Your task to perform on an android device: Open accessibility settings Image 0: 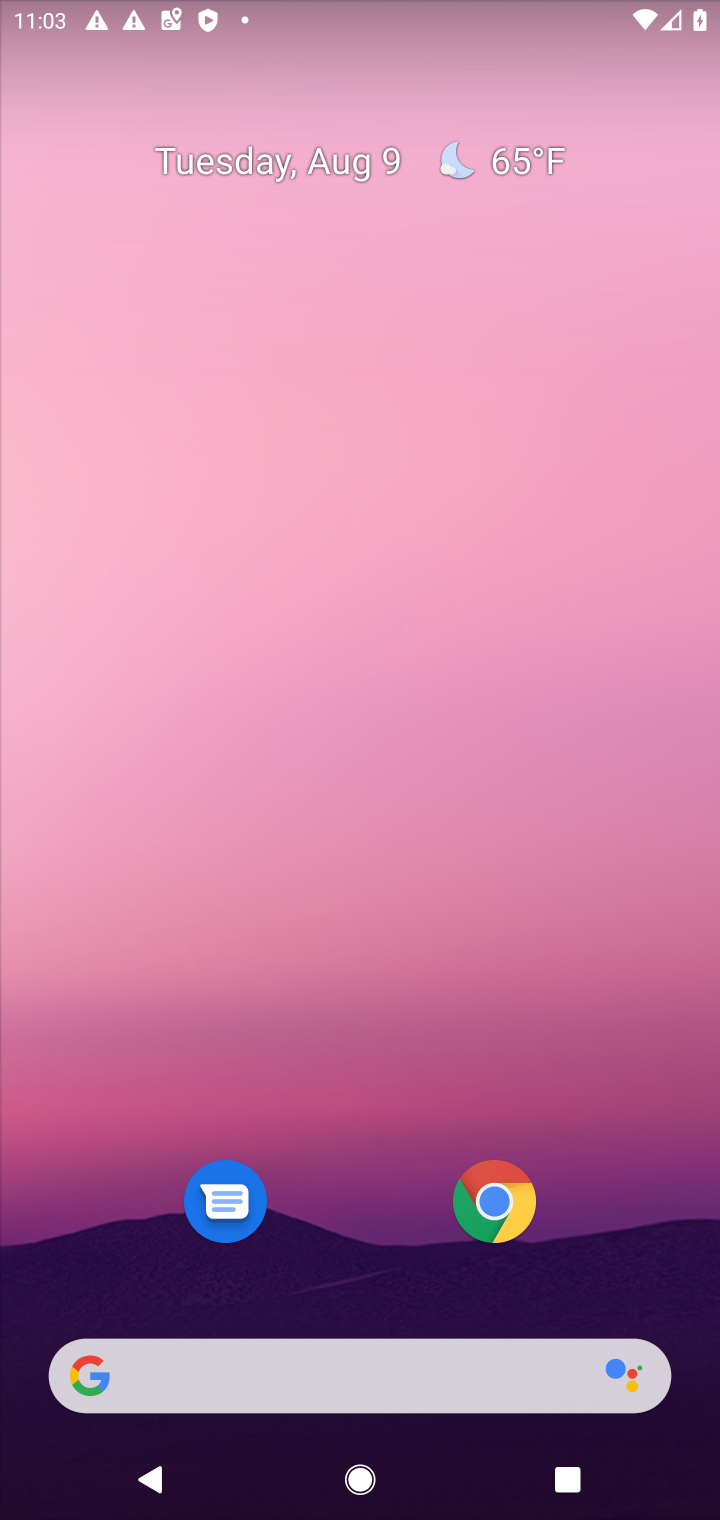
Step 0: drag from (388, 1260) to (663, 247)
Your task to perform on an android device: Open accessibility settings Image 1: 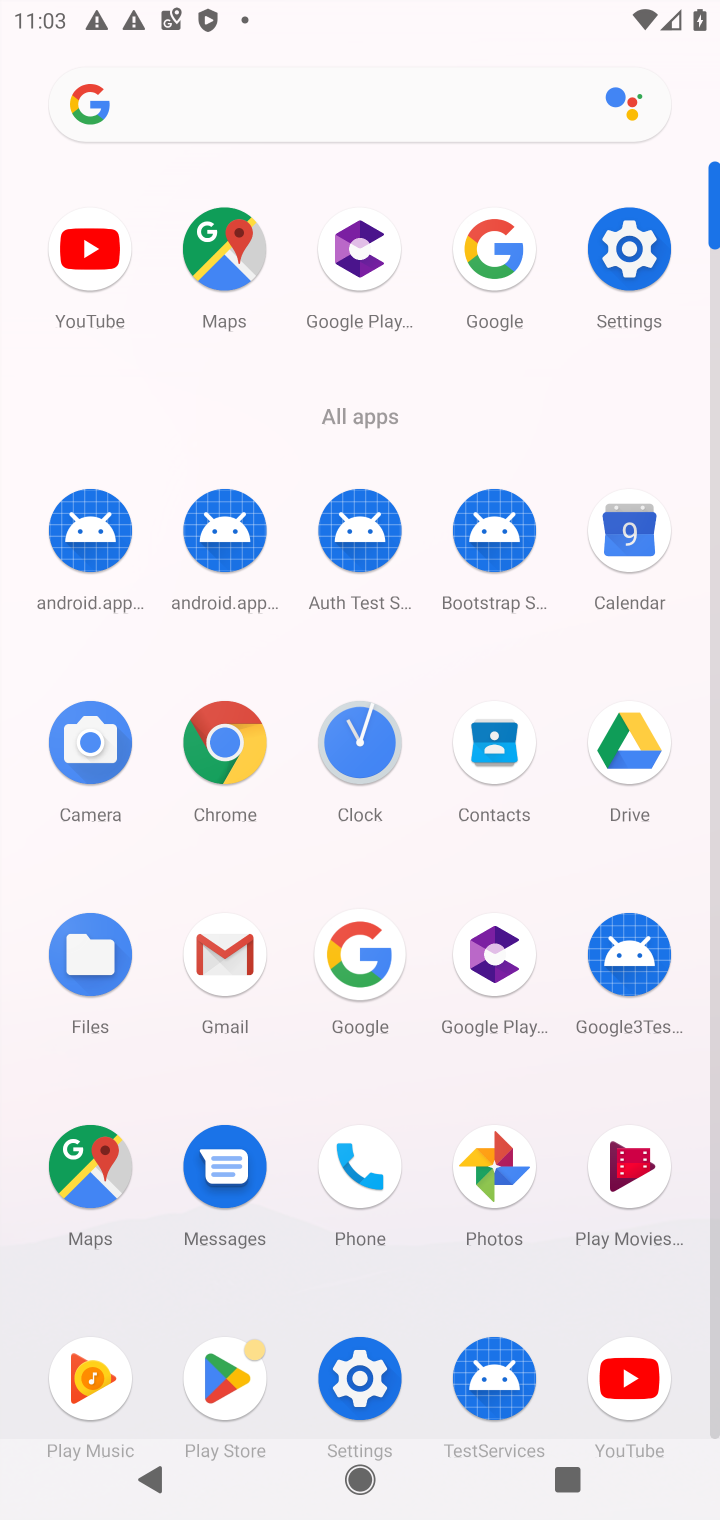
Step 1: click (619, 249)
Your task to perform on an android device: Open accessibility settings Image 2: 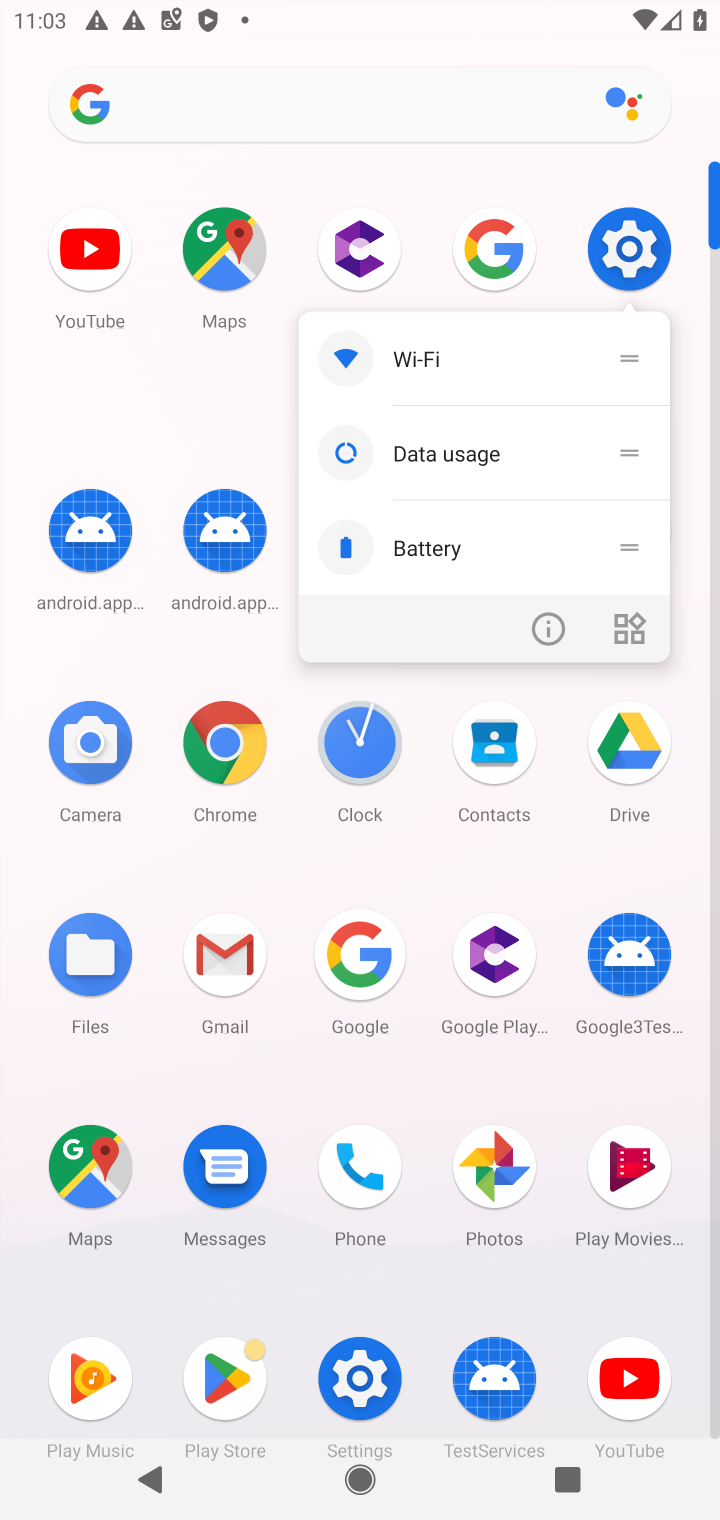
Step 2: click (630, 240)
Your task to perform on an android device: Open accessibility settings Image 3: 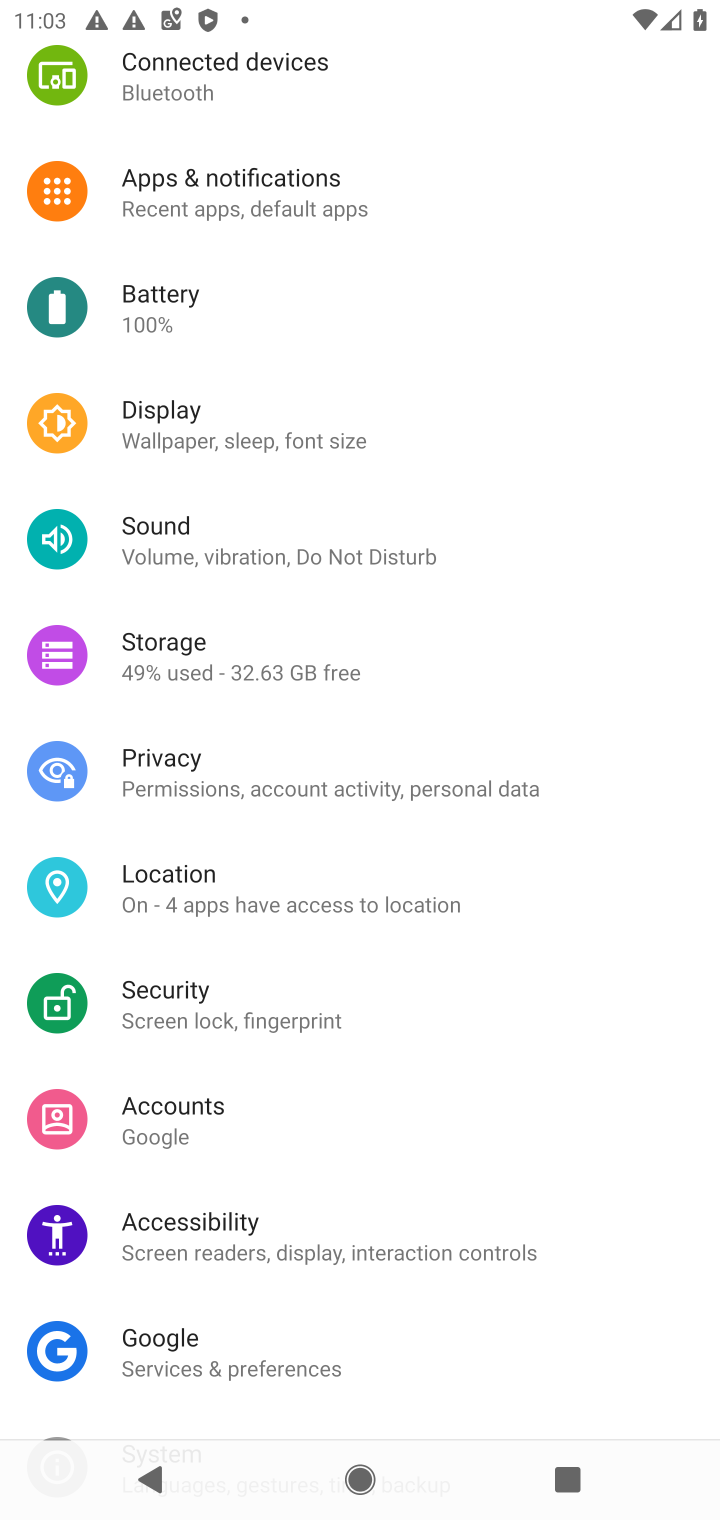
Step 3: click (238, 1217)
Your task to perform on an android device: Open accessibility settings Image 4: 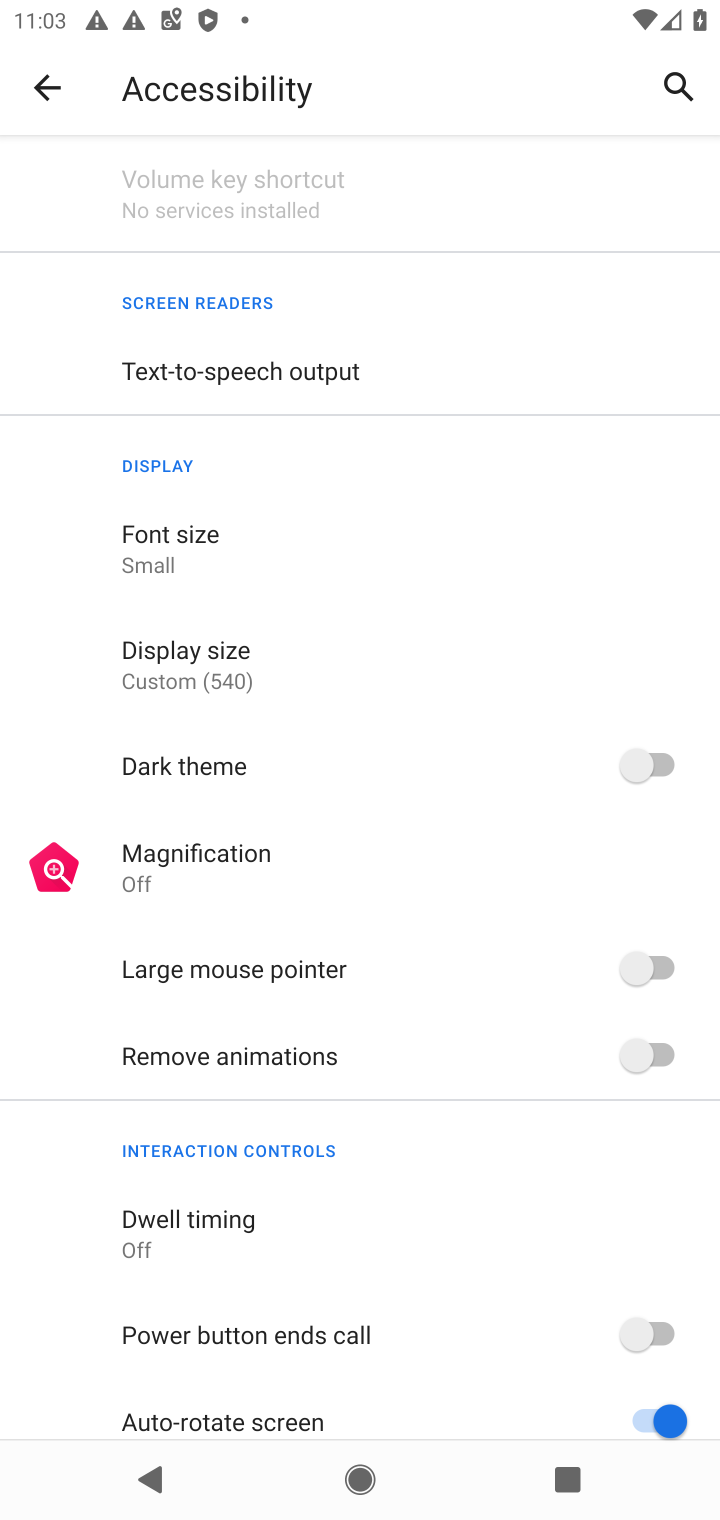
Step 4: task complete